Your task to perform on an android device: Empty the shopping cart on ebay. Add macbook air to the cart on ebay, then select checkout. Image 0: 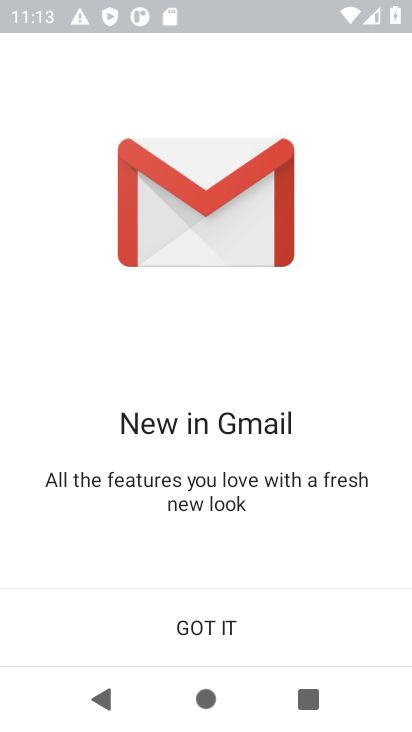
Step 0: press home button
Your task to perform on an android device: Empty the shopping cart on ebay. Add macbook air to the cart on ebay, then select checkout. Image 1: 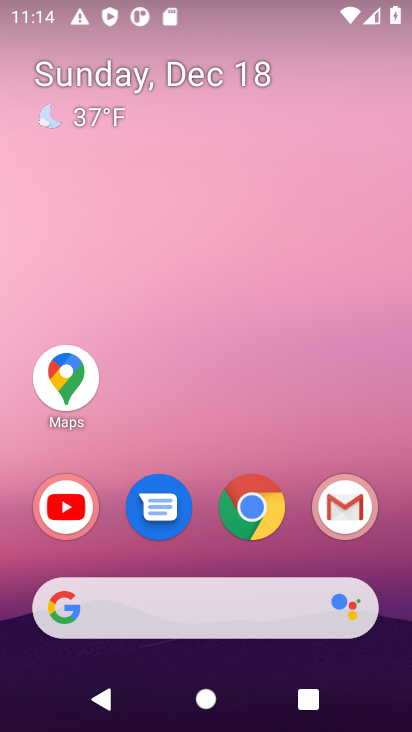
Step 1: click (258, 511)
Your task to perform on an android device: Empty the shopping cart on ebay. Add macbook air to the cart on ebay, then select checkout. Image 2: 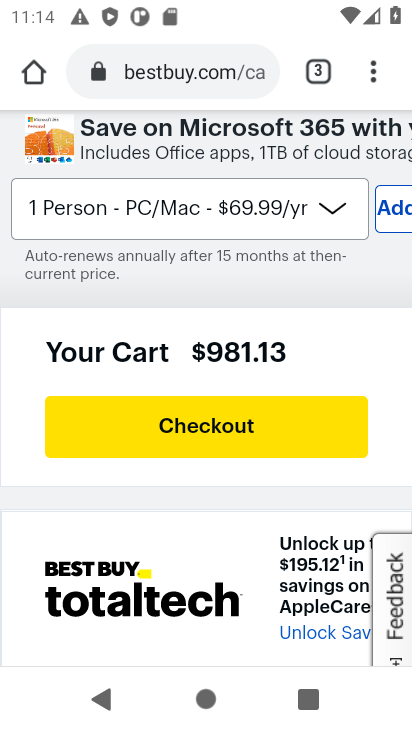
Step 2: click (180, 72)
Your task to perform on an android device: Empty the shopping cart on ebay. Add macbook air to the cart on ebay, then select checkout. Image 3: 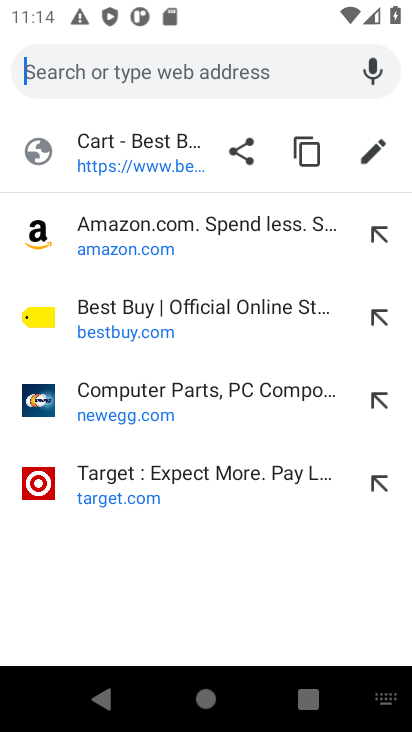
Step 3: type "ebay.com"
Your task to perform on an android device: Empty the shopping cart on ebay. Add macbook air to the cart on ebay, then select checkout. Image 4: 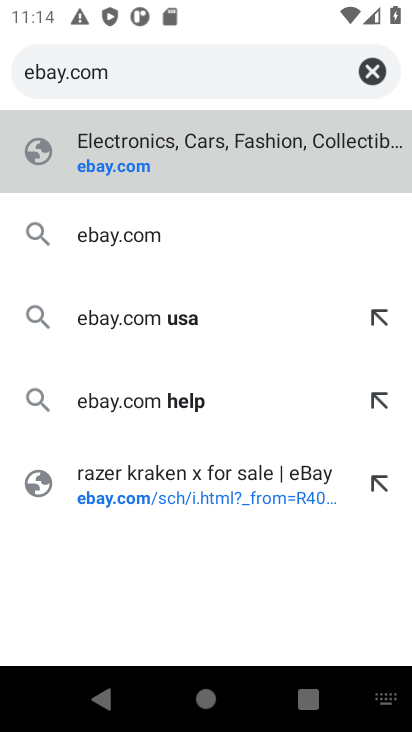
Step 4: click (89, 168)
Your task to perform on an android device: Empty the shopping cart on ebay. Add macbook air to the cart on ebay, then select checkout. Image 5: 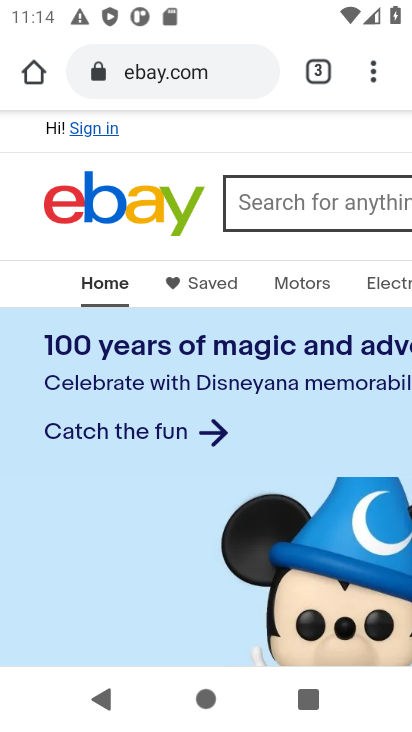
Step 5: drag from (339, 177) to (0, 132)
Your task to perform on an android device: Empty the shopping cart on ebay. Add macbook air to the cart on ebay, then select checkout. Image 6: 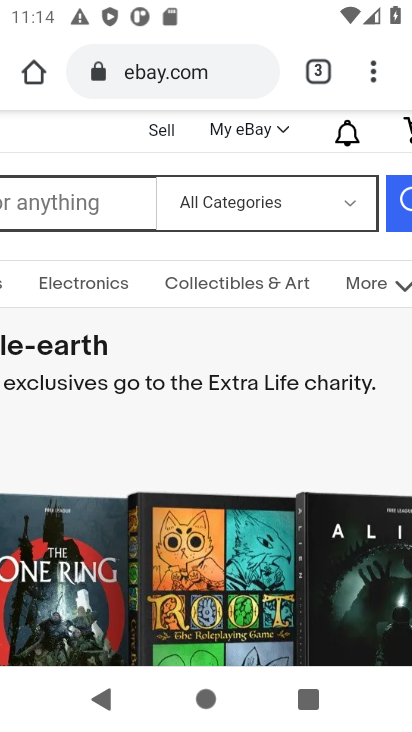
Step 6: drag from (362, 136) to (146, 153)
Your task to perform on an android device: Empty the shopping cart on ebay. Add macbook air to the cart on ebay, then select checkout. Image 7: 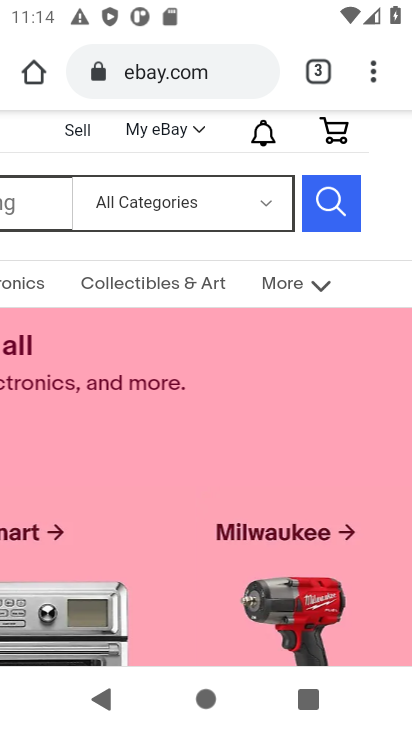
Step 7: click (336, 135)
Your task to perform on an android device: Empty the shopping cart on ebay. Add macbook air to the cart on ebay, then select checkout. Image 8: 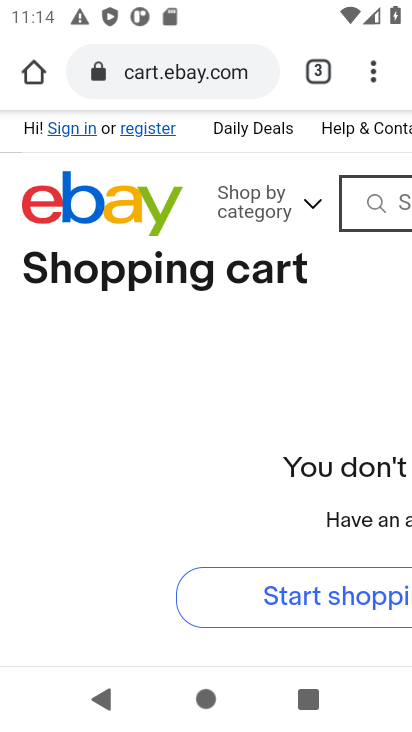
Step 8: click (373, 204)
Your task to perform on an android device: Empty the shopping cart on ebay. Add macbook air to the cart on ebay, then select checkout. Image 9: 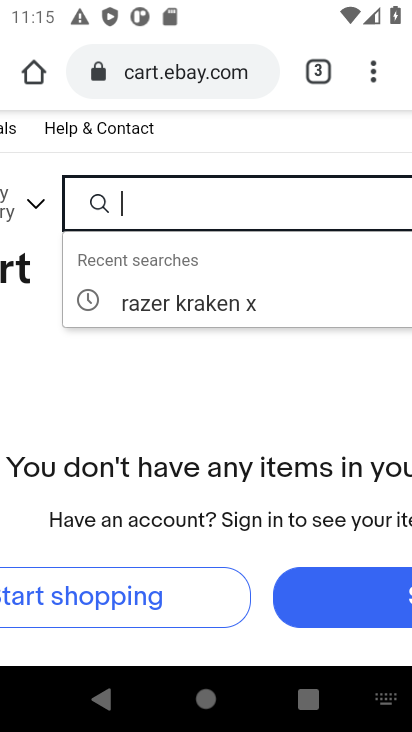
Step 9: type "macbook air"
Your task to perform on an android device: Empty the shopping cart on ebay. Add macbook air to the cart on ebay, then select checkout. Image 10: 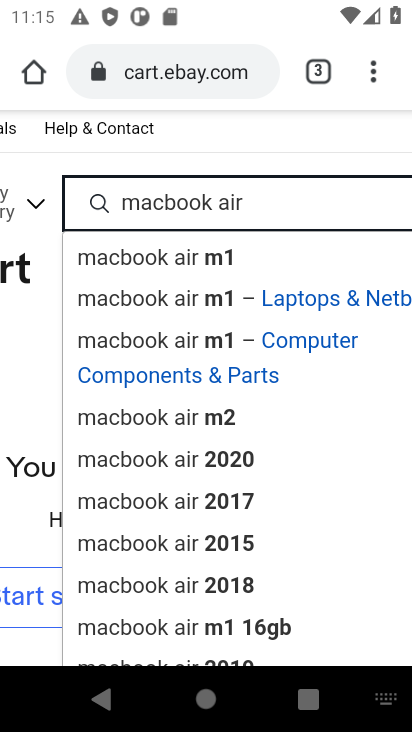
Step 10: click (198, 253)
Your task to perform on an android device: Empty the shopping cart on ebay. Add macbook air to the cart on ebay, then select checkout. Image 11: 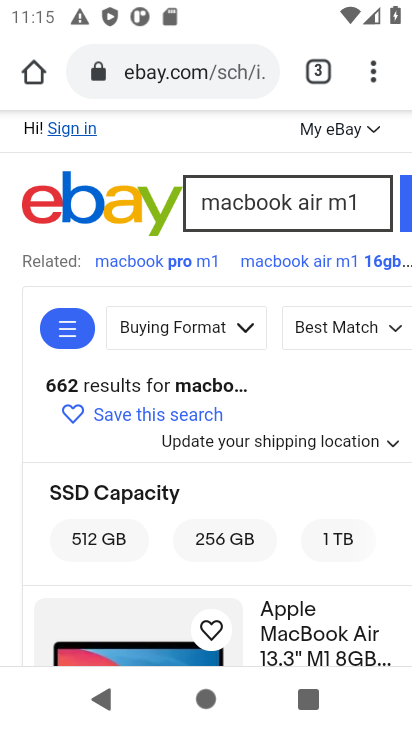
Step 11: drag from (251, 548) to (251, 394)
Your task to perform on an android device: Empty the shopping cart on ebay. Add macbook air to the cart on ebay, then select checkout. Image 12: 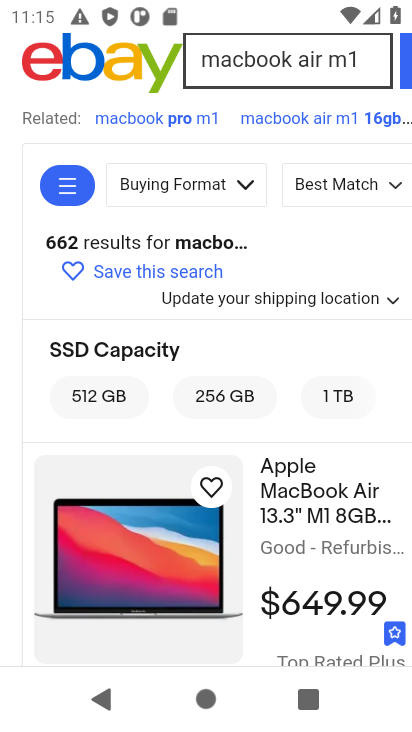
Step 12: click (317, 516)
Your task to perform on an android device: Empty the shopping cart on ebay. Add macbook air to the cart on ebay, then select checkout. Image 13: 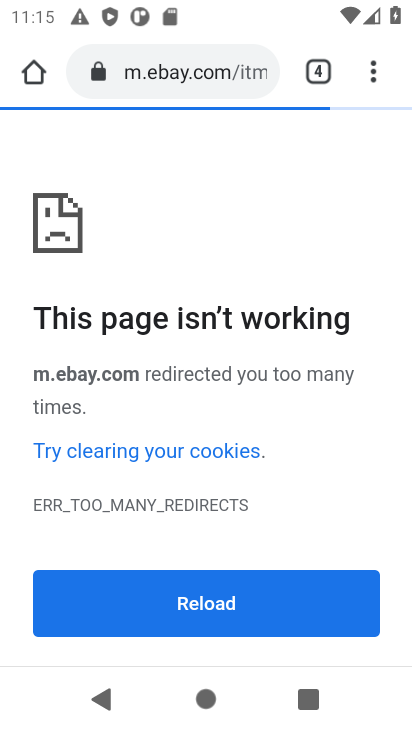
Step 13: task complete